Your task to perform on an android device: Open Reddit.com Image 0: 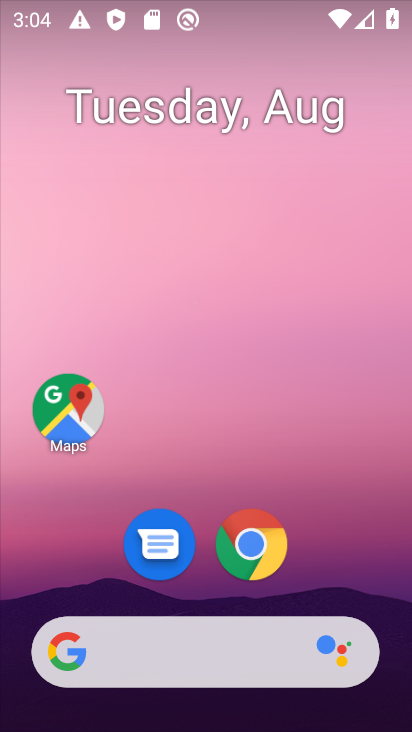
Step 0: drag from (357, 586) to (234, 6)
Your task to perform on an android device: Open Reddit.com Image 1: 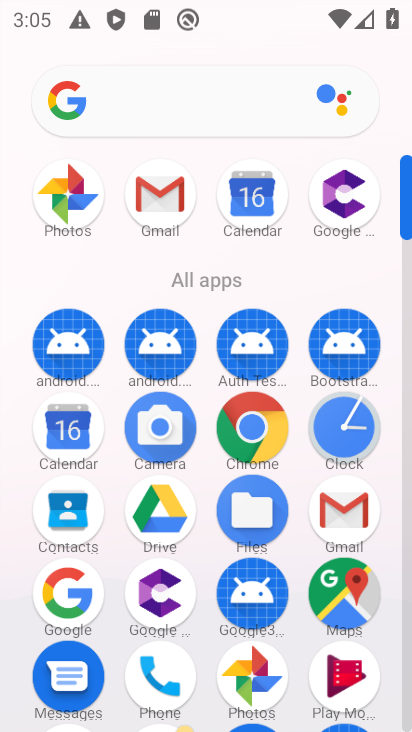
Step 1: click (81, 593)
Your task to perform on an android device: Open Reddit.com Image 2: 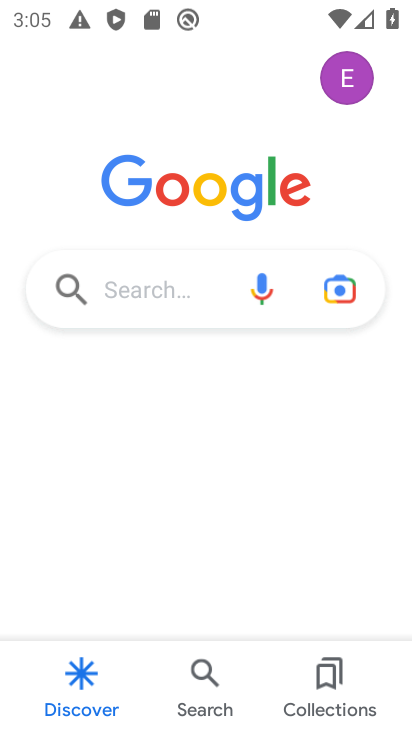
Step 2: click (140, 292)
Your task to perform on an android device: Open Reddit.com Image 3: 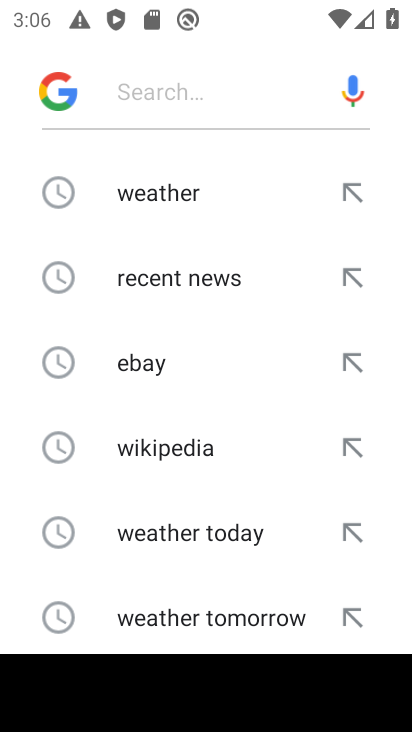
Step 3: type "Reddit.com"
Your task to perform on an android device: Open Reddit.com Image 4: 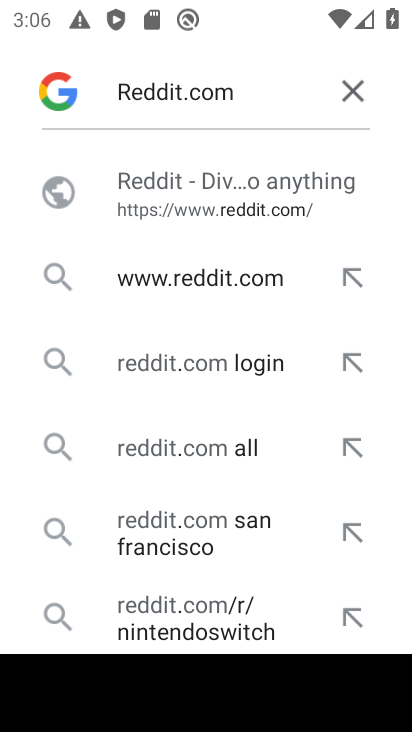
Step 4: click (192, 196)
Your task to perform on an android device: Open Reddit.com Image 5: 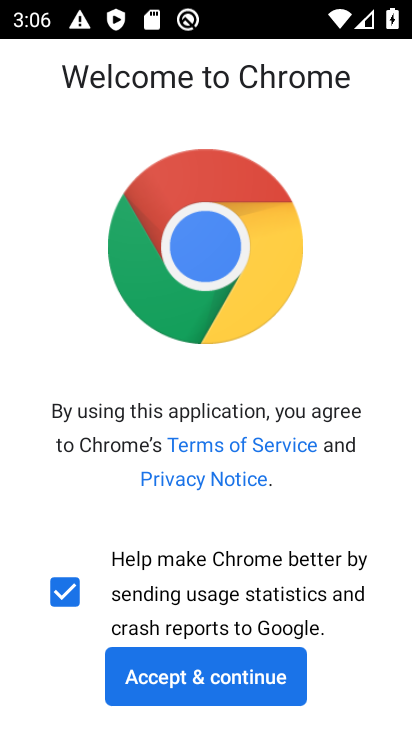
Step 5: click (235, 670)
Your task to perform on an android device: Open Reddit.com Image 6: 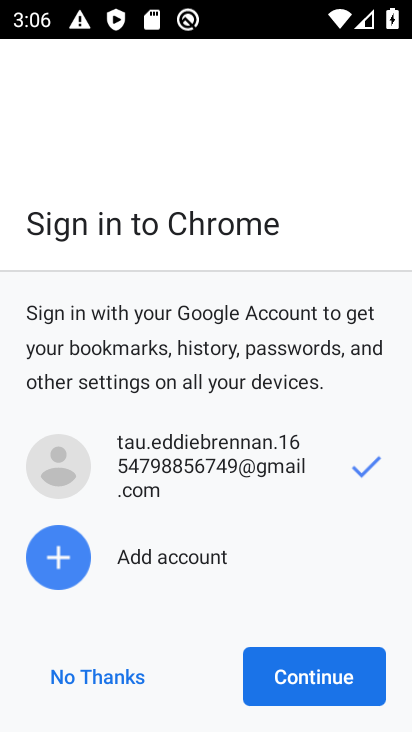
Step 6: click (275, 670)
Your task to perform on an android device: Open Reddit.com Image 7: 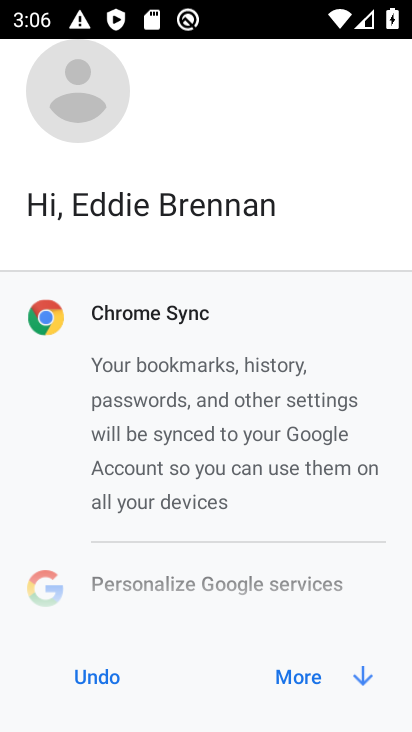
Step 7: click (298, 670)
Your task to perform on an android device: Open Reddit.com Image 8: 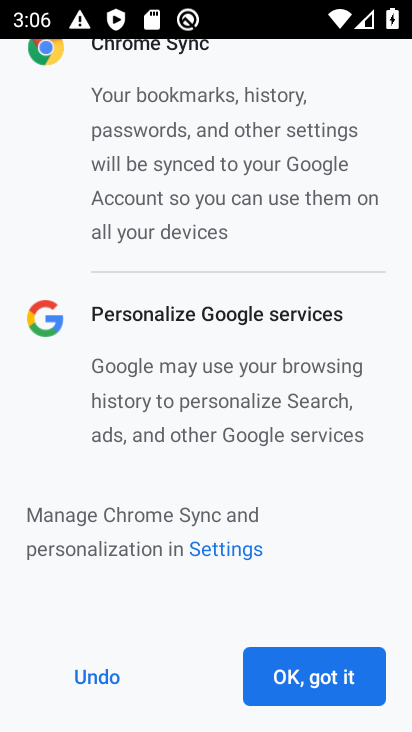
Step 8: click (298, 670)
Your task to perform on an android device: Open Reddit.com Image 9: 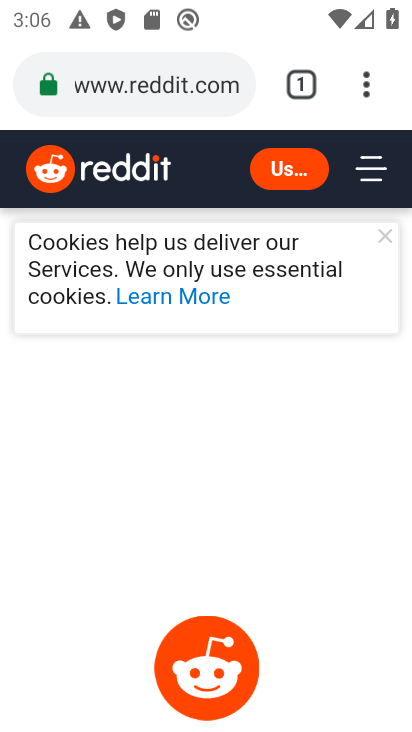
Step 9: task complete